Your task to perform on an android device: turn notification dots on Image 0: 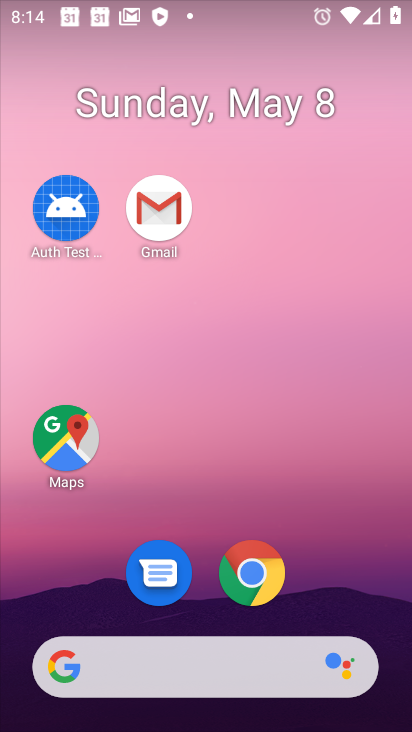
Step 0: drag from (347, 614) to (145, 0)
Your task to perform on an android device: turn notification dots on Image 1: 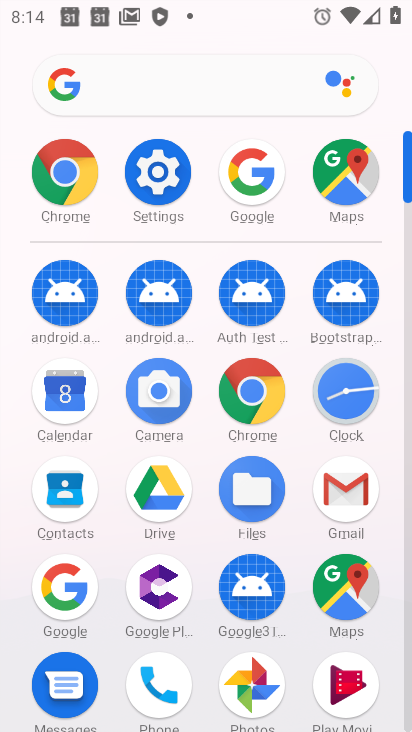
Step 1: click (144, 168)
Your task to perform on an android device: turn notification dots on Image 2: 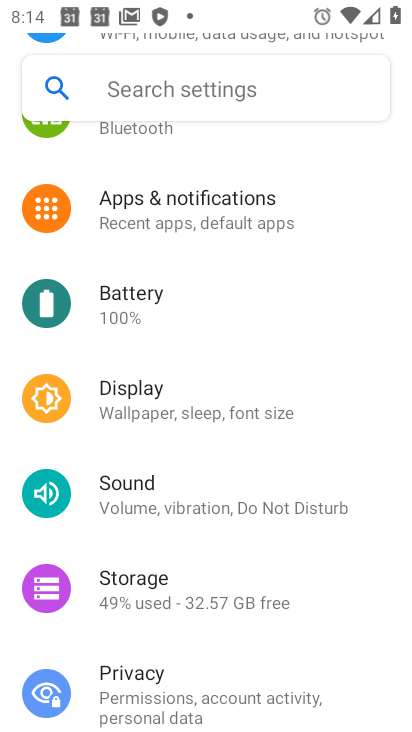
Step 2: click (175, 209)
Your task to perform on an android device: turn notification dots on Image 3: 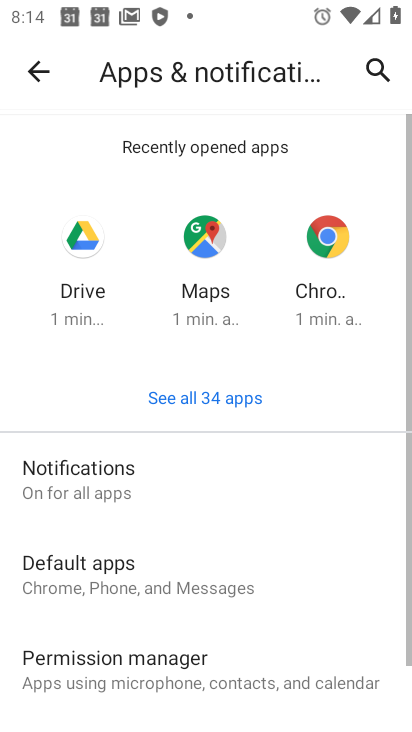
Step 3: click (204, 214)
Your task to perform on an android device: turn notification dots on Image 4: 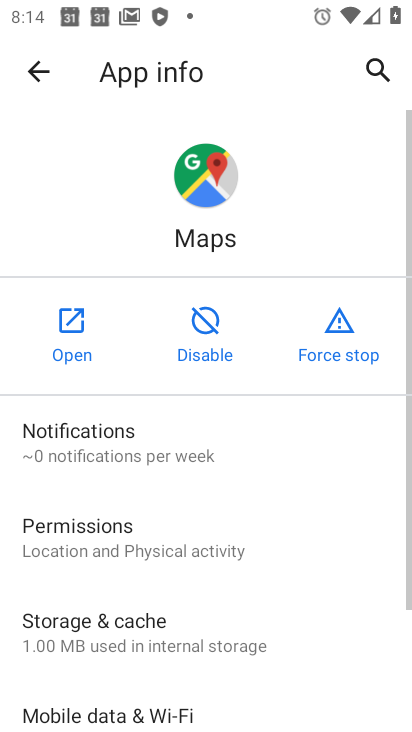
Step 4: drag from (234, 667) to (213, 73)
Your task to perform on an android device: turn notification dots on Image 5: 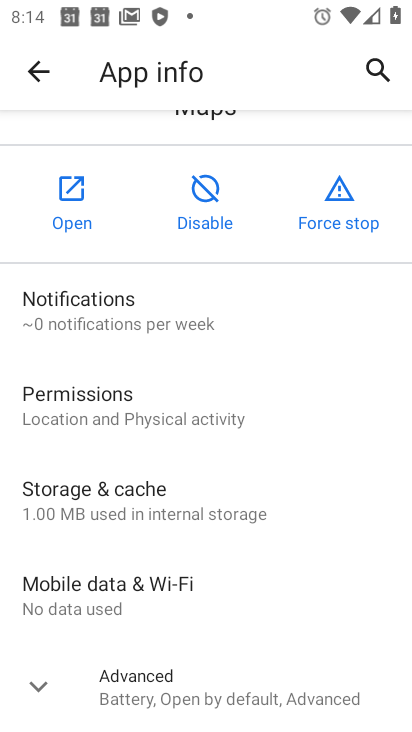
Step 5: click (87, 302)
Your task to perform on an android device: turn notification dots on Image 6: 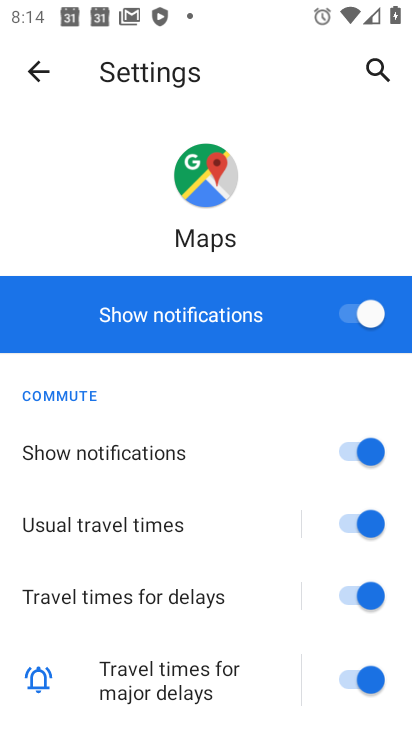
Step 6: click (304, 548)
Your task to perform on an android device: turn notification dots on Image 7: 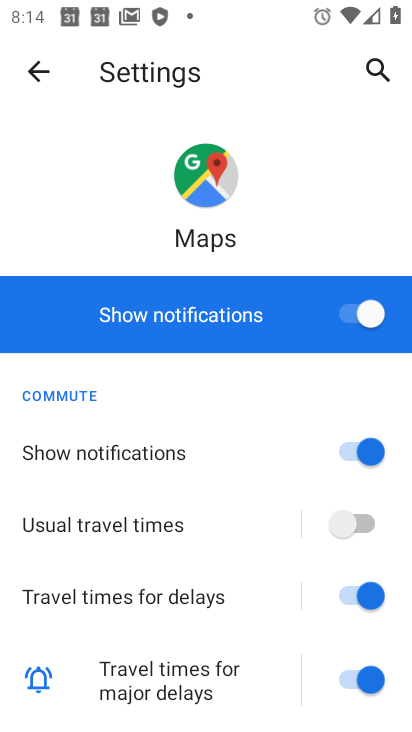
Step 7: click (26, 70)
Your task to perform on an android device: turn notification dots on Image 8: 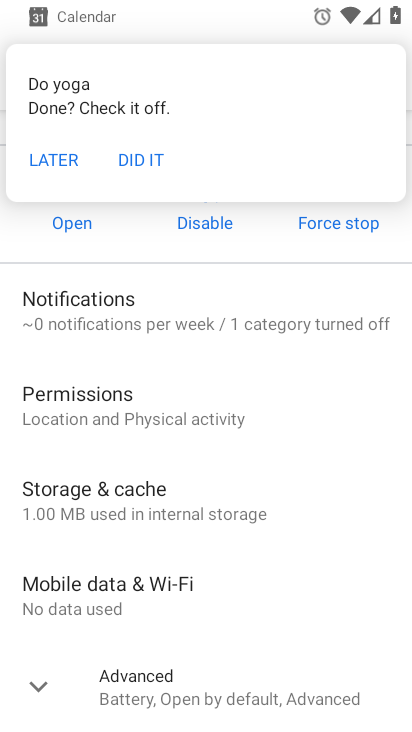
Step 8: click (129, 164)
Your task to perform on an android device: turn notification dots on Image 9: 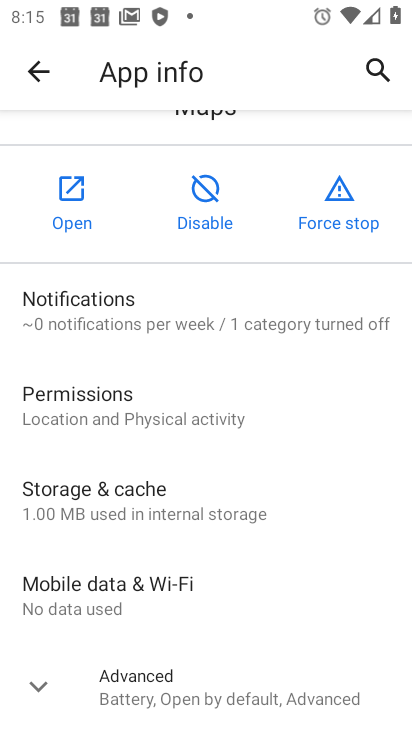
Step 9: click (39, 65)
Your task to perform on an android device: turn notification dots on Image 10: 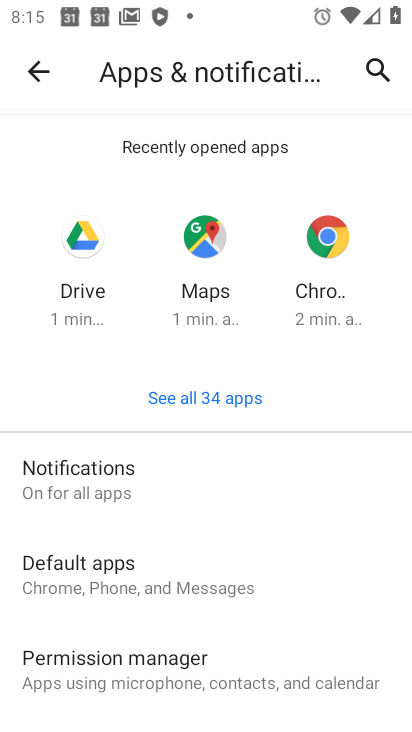
Step 10: click (79, 472)
Your task to perform on an android device: turn notification dots on Image 11: 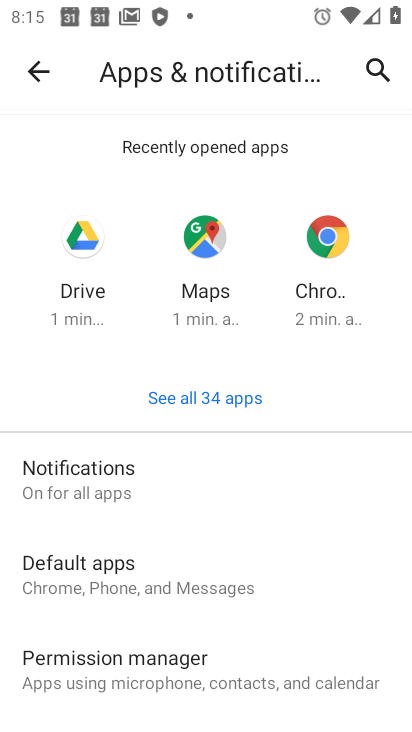
Step 11: click (82, 477)
Your task to perform on an android device: turn notification dots on Image 12: 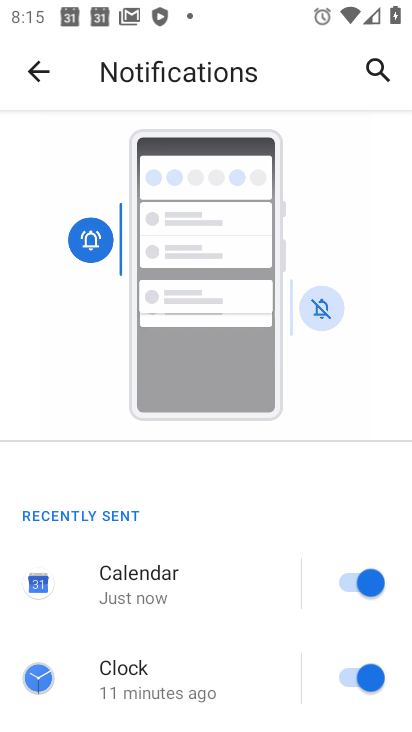
Step 12: drag from (237, 597) to (214, 113)
Your task to perform on an android device: turn notification dots on Image 13: 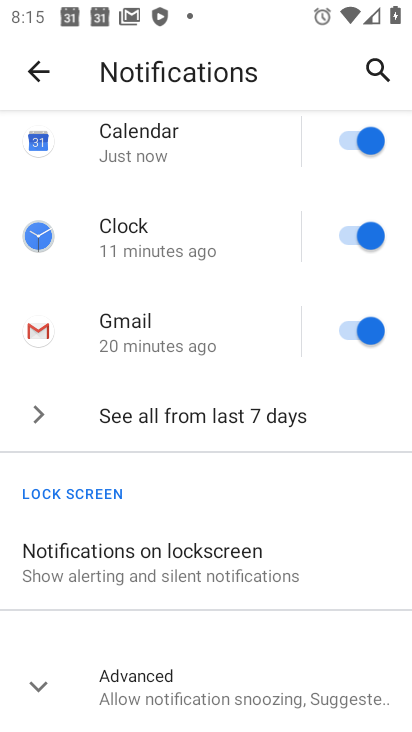
Step 13: drag from (193, 667) to (142, 305)
Your task to perform on an android device: turn notification dots on Image 14: 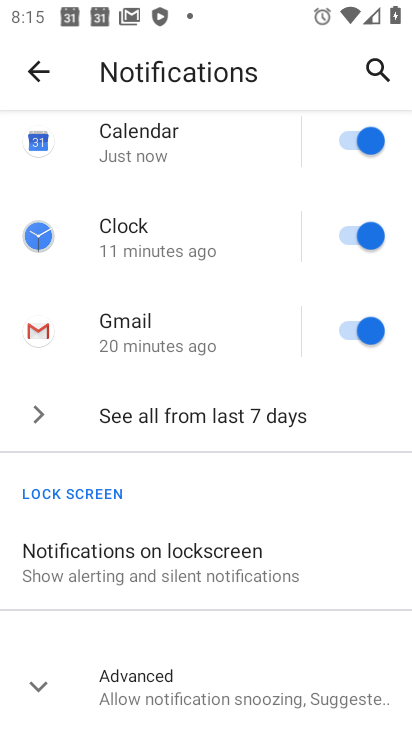
Step 14: click (165, 690)
Your task to perform on an android device: turn notification dots on Image 15: 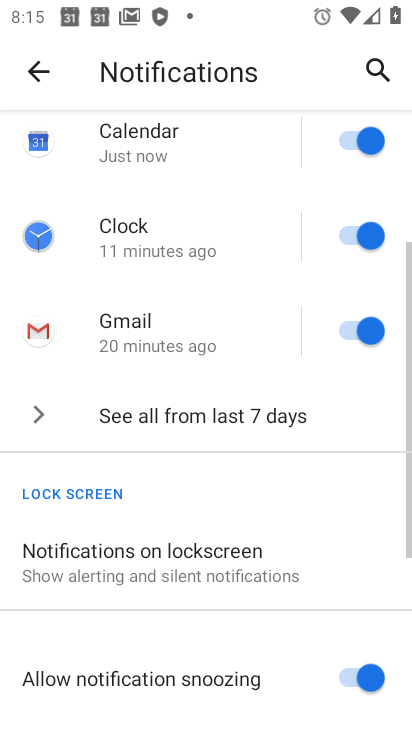
Step 15: drag from (258, 637) to (216, 246)
Your task to perform on an android device: turn notification dots on Image 16: 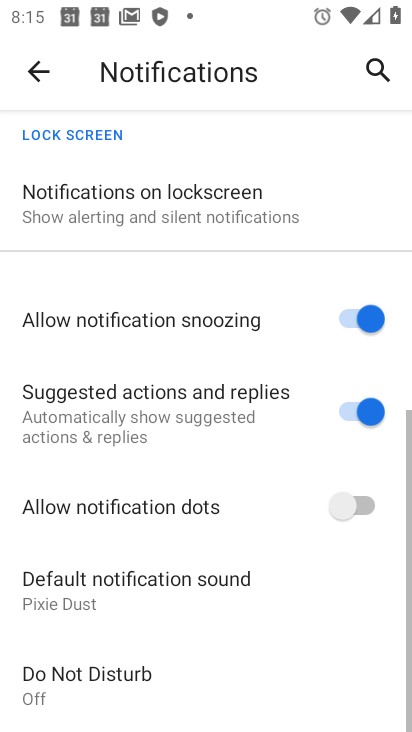
Step 16: drag from (249, 620) to (167, 163)
Your task to perform on an android device: turn notification dots on Image 17: 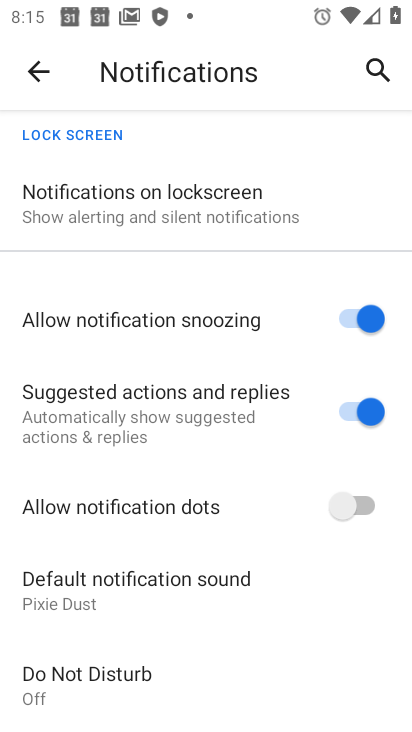
Step 17: click (343, 499)
Your task to perform on an android device: turn notification dots on Image 18: 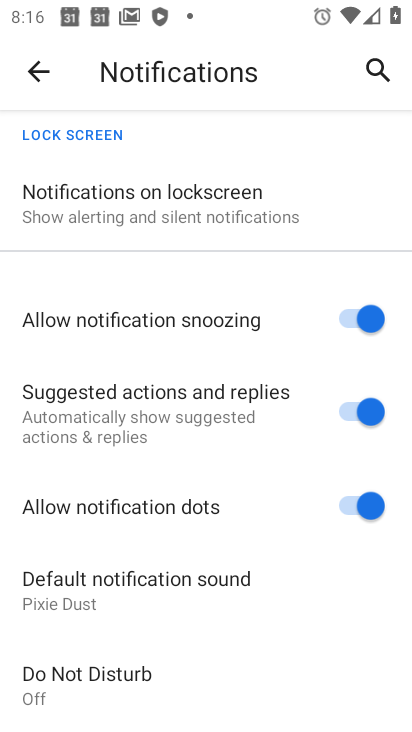
Step 18: task complete